Your task to perform on an android device: open wifi settings Image 0: 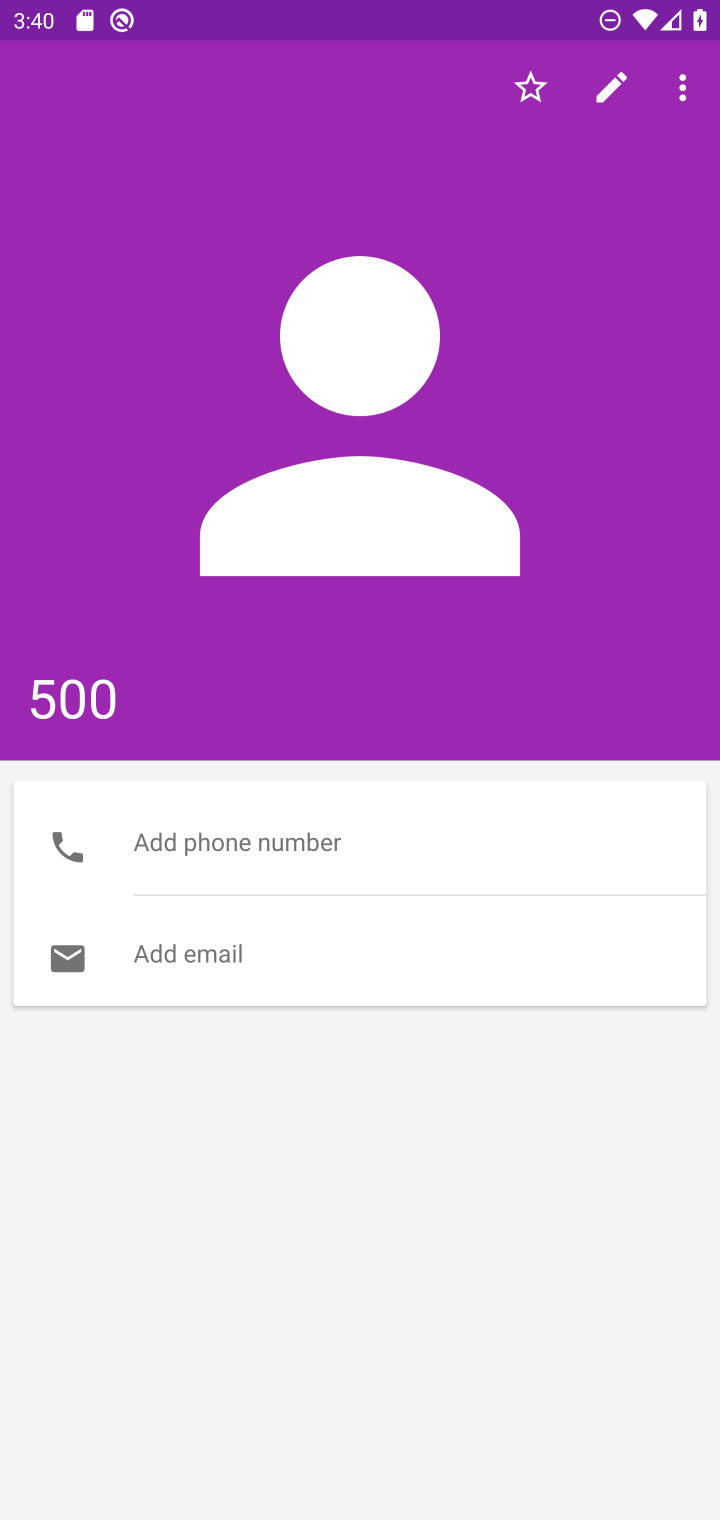
Step 0: press home button
Your task to perform on an android device: open wifi settings Image 1: 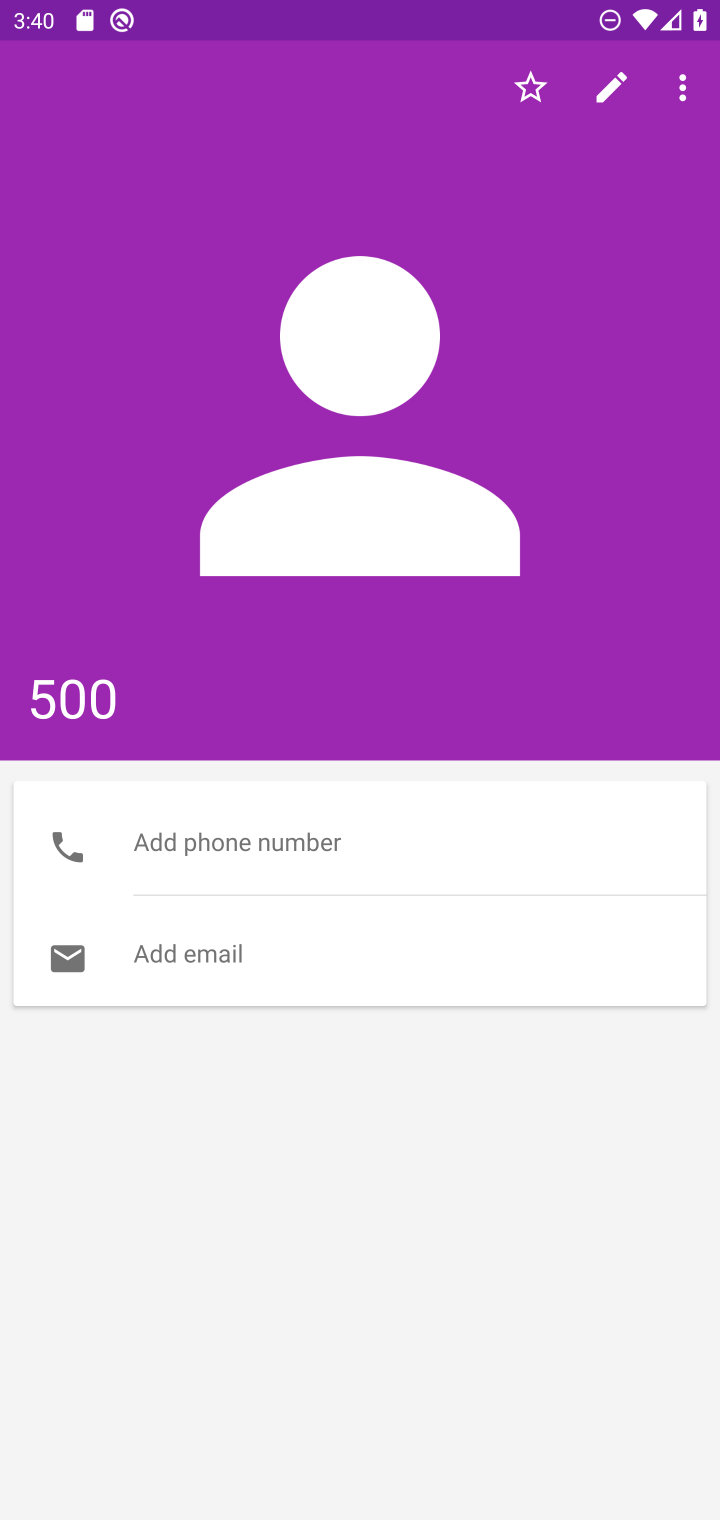
Step 1: press home button
Your task to perform on an android device: open wifi settings Image 2: 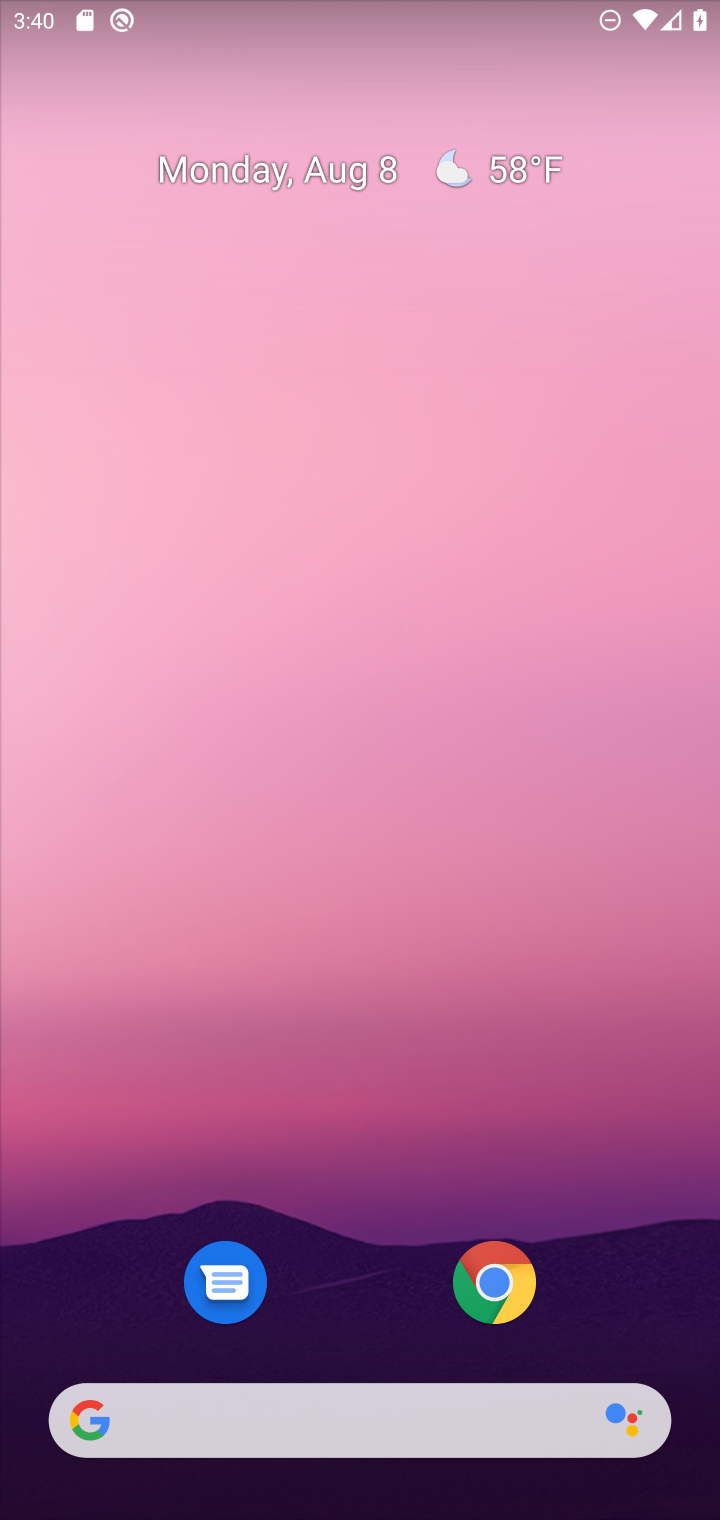
Step 2: drag from (351, 1256) to (616, 192)
Your task to perform on an android device: open wifi settings Image 3: 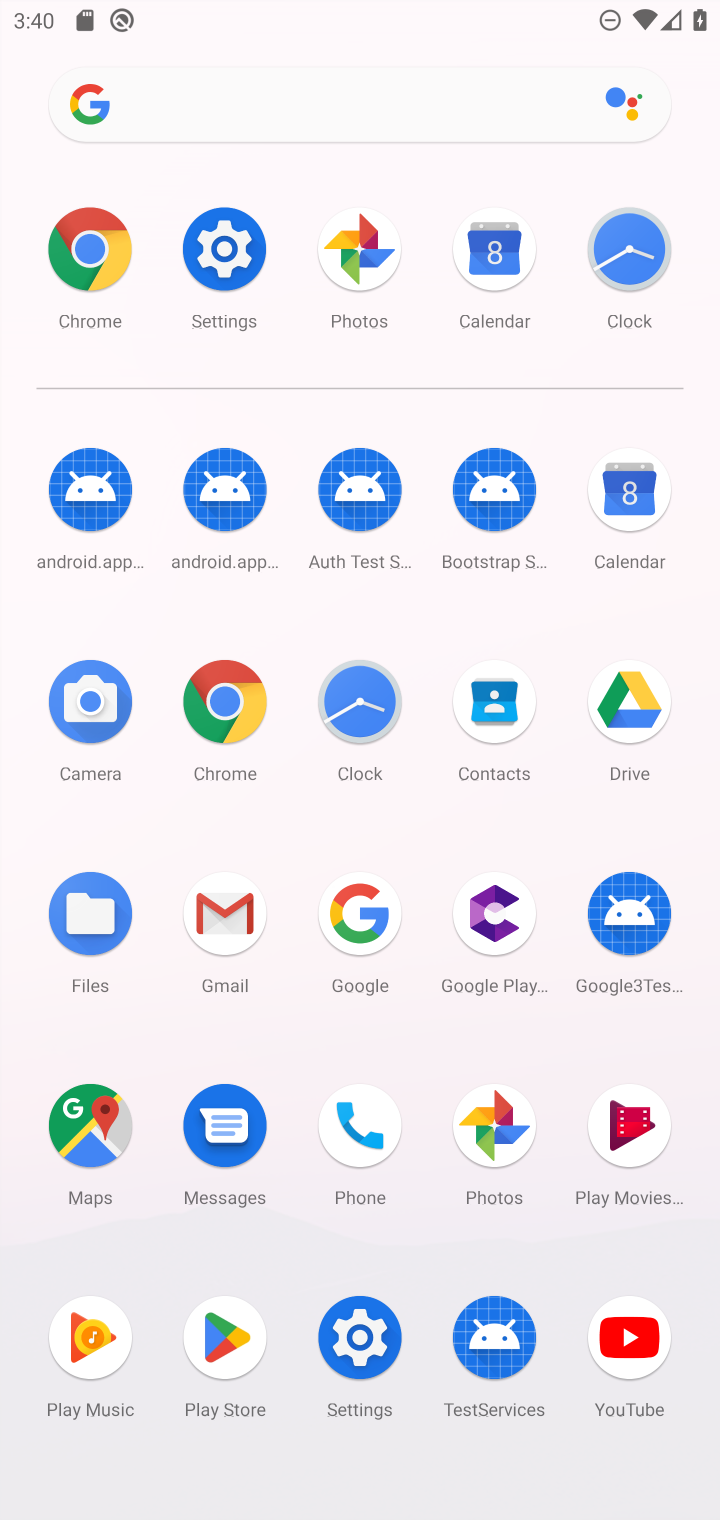
Step 3: click (219, 238)
Your task to perform on an android device: open wifi settings Image 4: 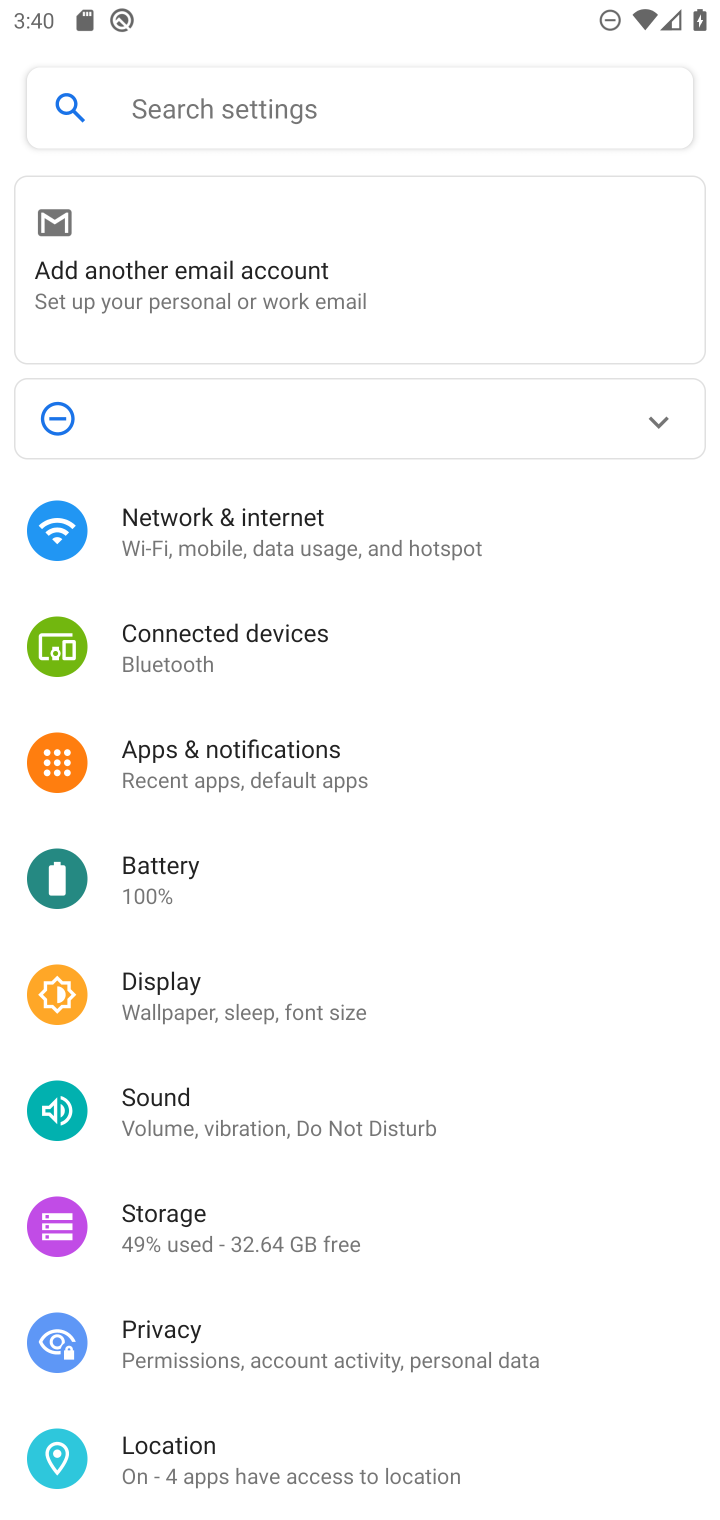
Step 4: click (274, 523)
Your task to perform on an android device: open wifi settings Image 5: 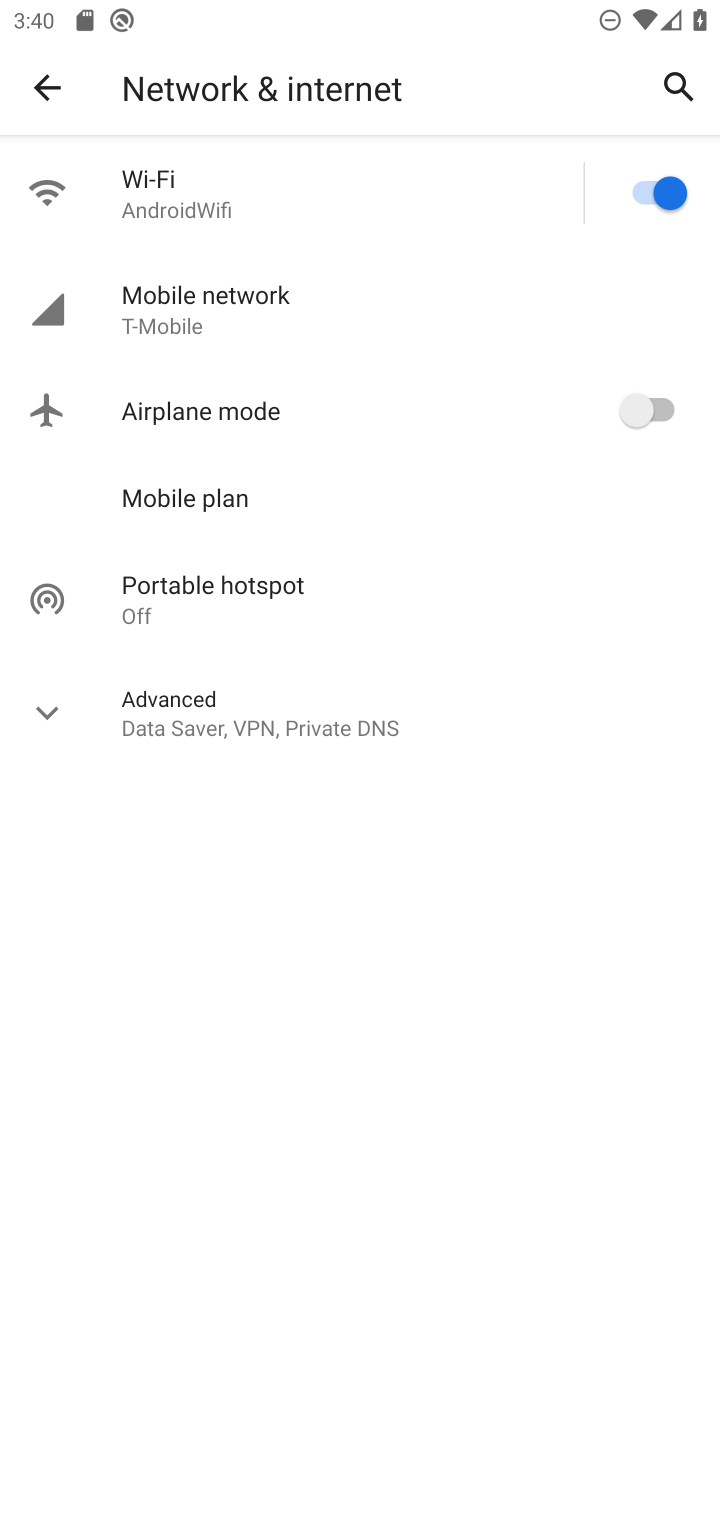
Step 5: click (353, 198)
Your task to perform on an android device: open wifi settings Image 6: 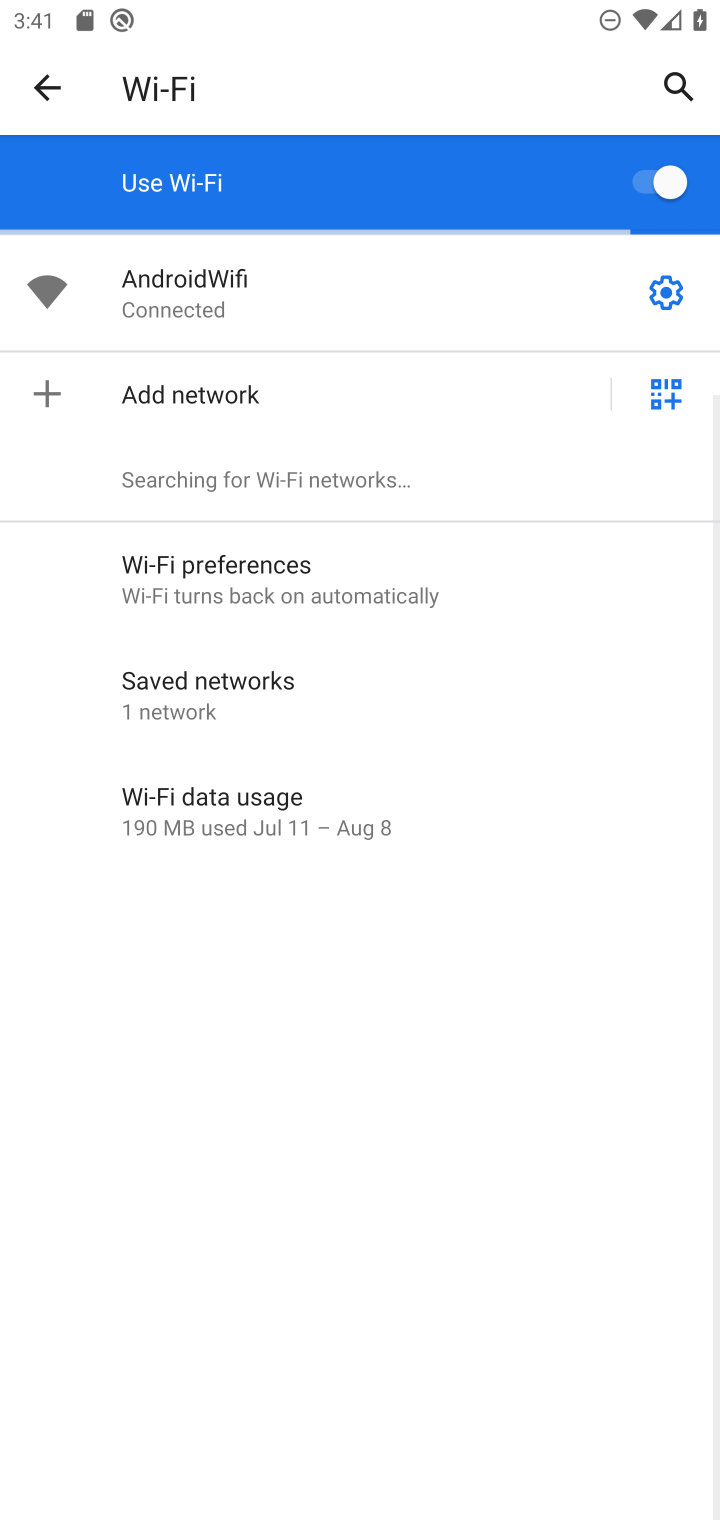
Step 6: click (672, 281)
Your task to perform on an android device: open wifi settings Image 7: 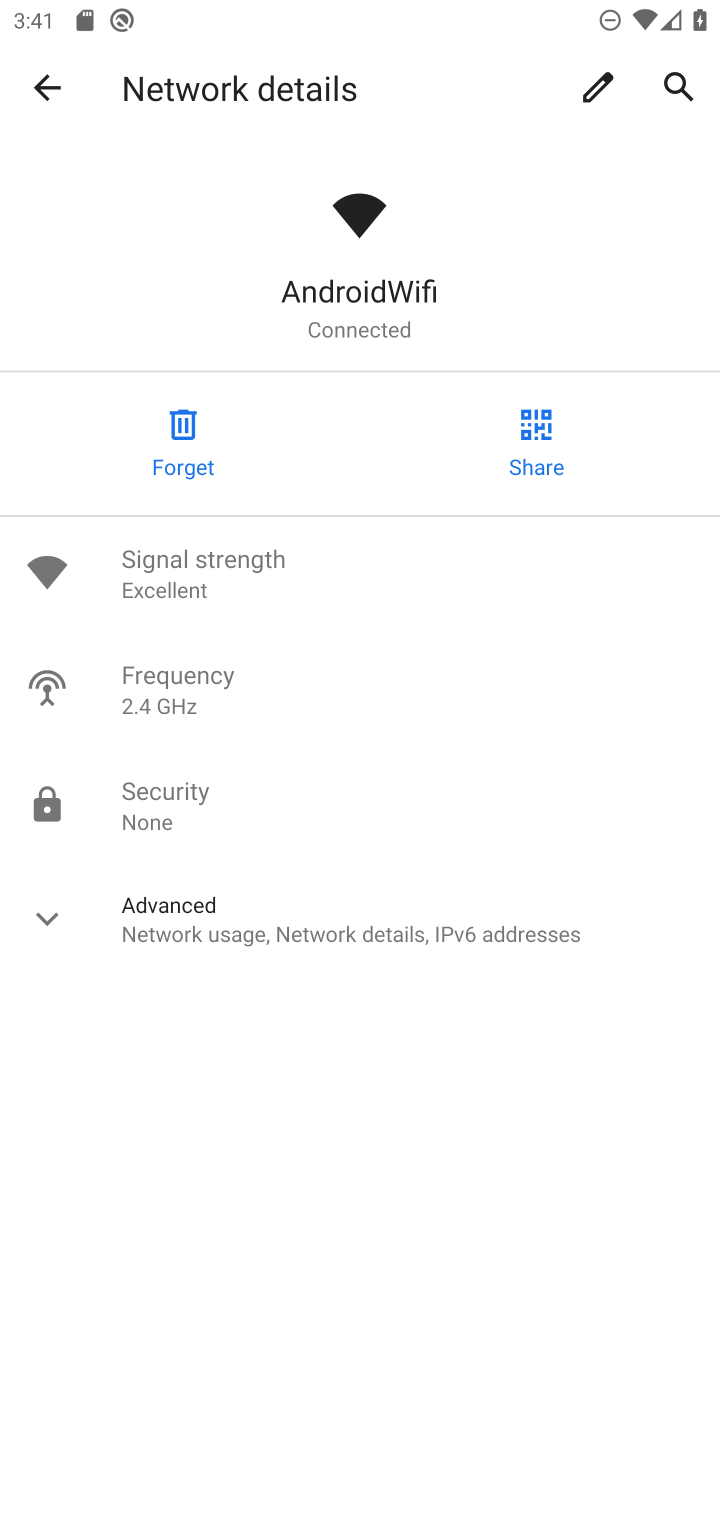
Step 7: task complete